Your task to perform on an android device: Search for the new Nintendo switch on Best Buy Image 0: 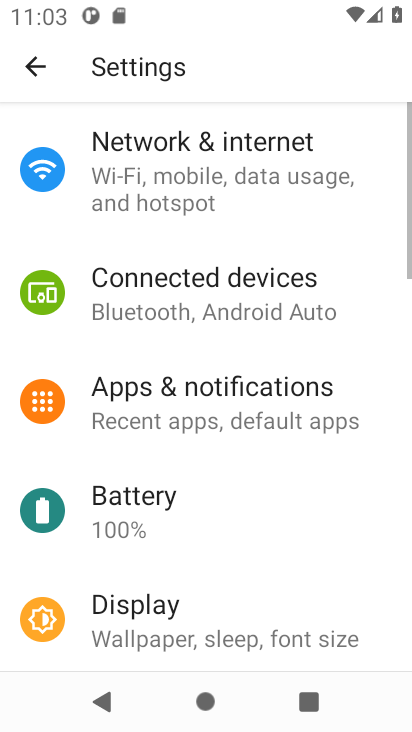
Step 0: press home button
Your task to perform on an android device: Search for the new Nintendo switch on Best Buy Image 1: 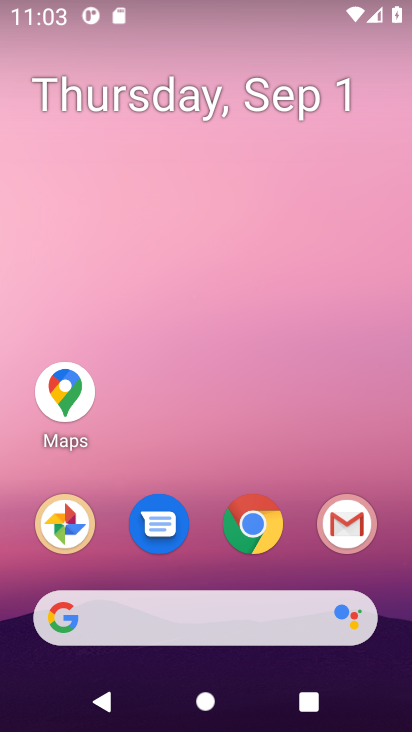
Step 1: drag from (386, 559) to (376, 90)
Your task to perform on an android device: Search for the new Nintendo switch on Best Buy Image 2: 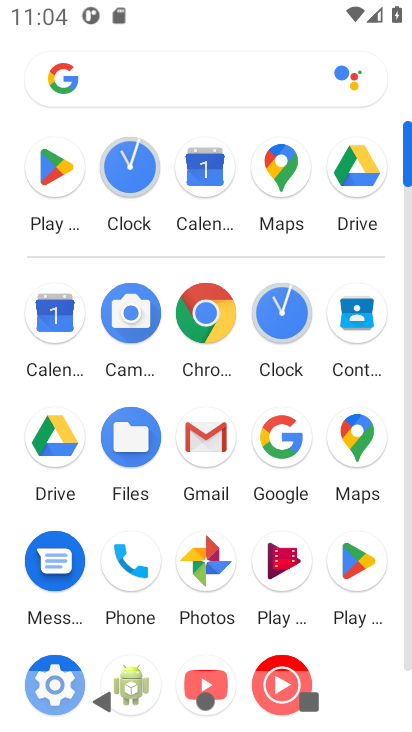
Step 2: click (276, 438)
Your task to perform on an android device: Search for the new Nintendo switch on Best Buy Image 3: 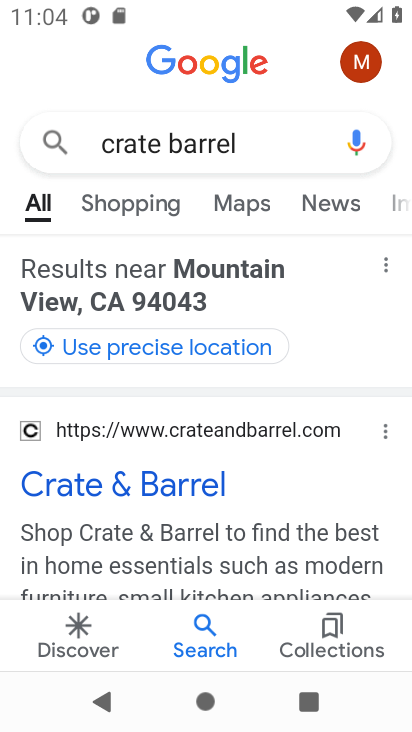
Step 3: press back button
Your task to perform on an android device: Search for the new Nintendo switch on Best Buy Image 4: 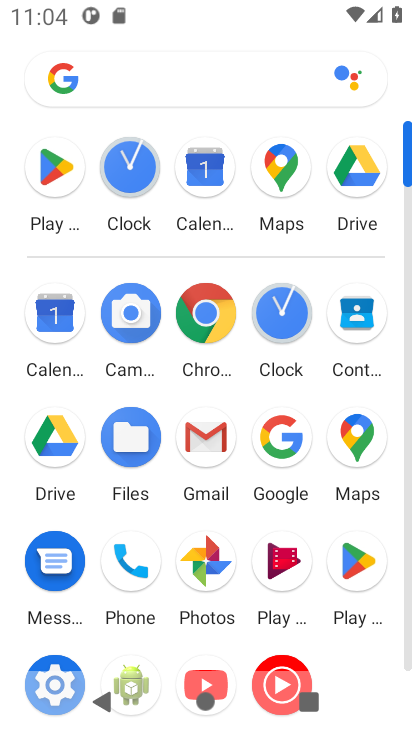
Step 4: click (208, 298)
Your task to perform on an android device: Search for the new Nintendo switch on Best Buy Image 5: 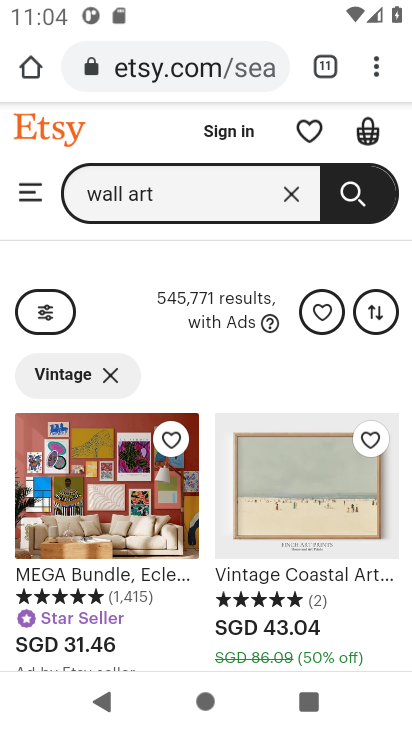
Step 5: click (244, 79)
Your task to perform on an android device: Search for the new Nintendo switch on Best Buy Image 6: 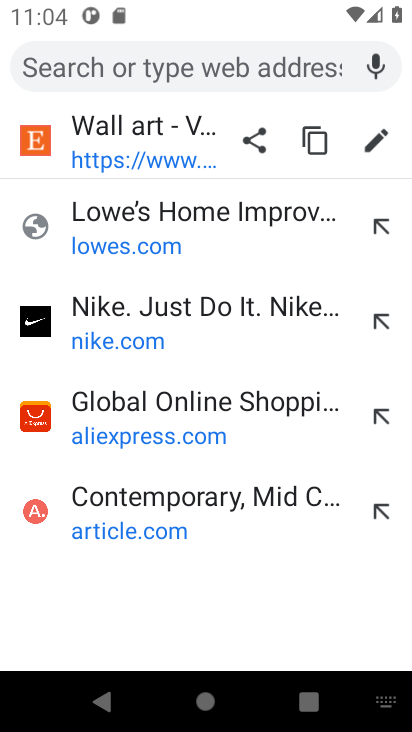
Step 6: press enter
Your task to perform on an android device: Search for the new Nintendo switch on Best Buy Image 7: 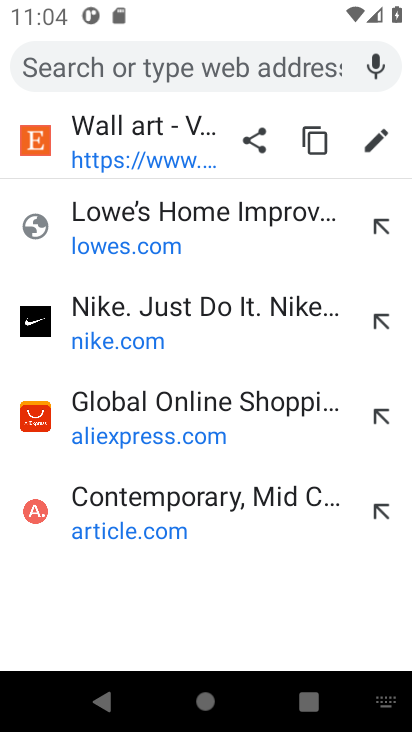
Step 7: type "best buy"
Your task to perform on an android device: Search for the new Nintendo switch on Best Buy Image 8: 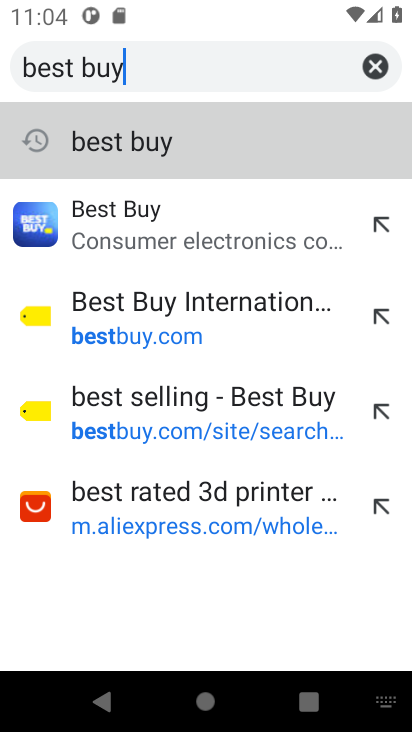
Step 8: click (179, 146)
Your task to perform on an android device: Search for the new Nintendo switch on Best Buy Image 9: 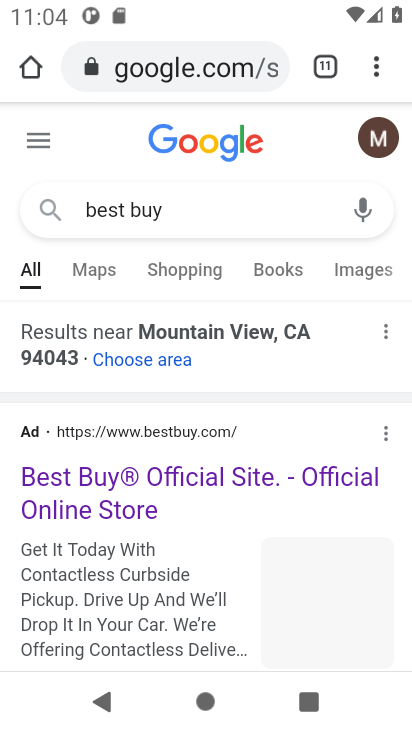
Step 9: click (242, 472)
Your task to perform on an android device: Search for the new Nintendo switch on Best Buy Image 10: 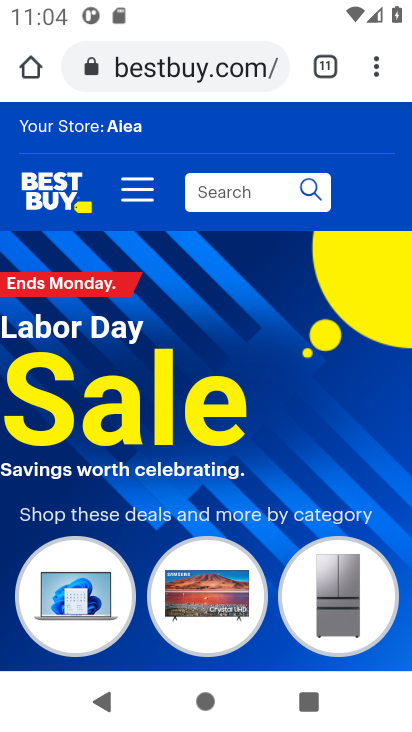
Step 10: click (162, 482)
Your task to perform on an android device: Search for the new Nintendo switch on Best Buy Image 11: 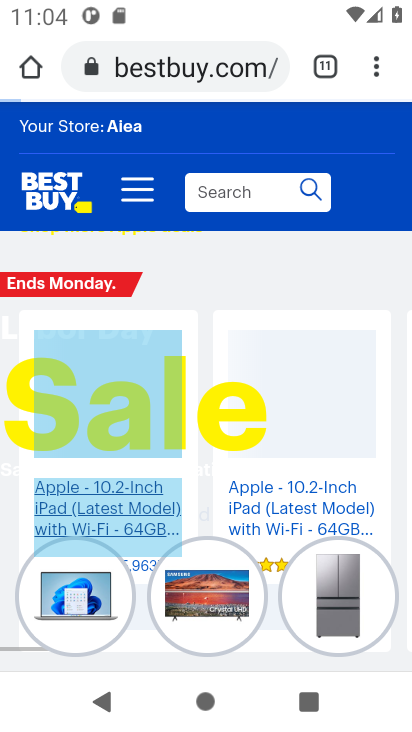
Step 11: click (250, 193)
Your task to perform on an android device: Search for the new Nintendo switch on Best Buy Image 12: 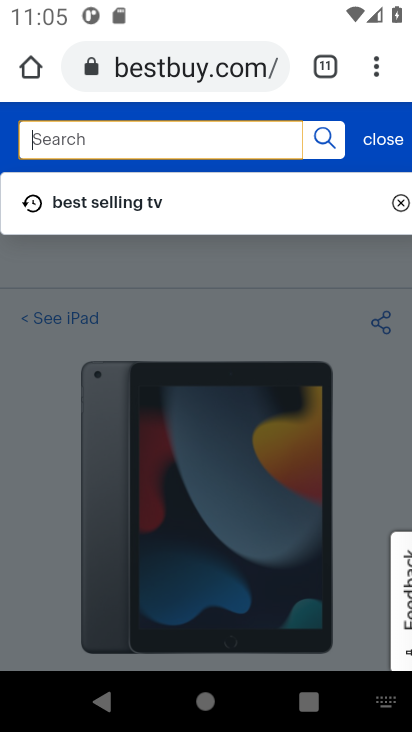
Step 12: press enter
Your task to perform on an android device: Search for the new Nintendo switch on Best Buy Image 13: 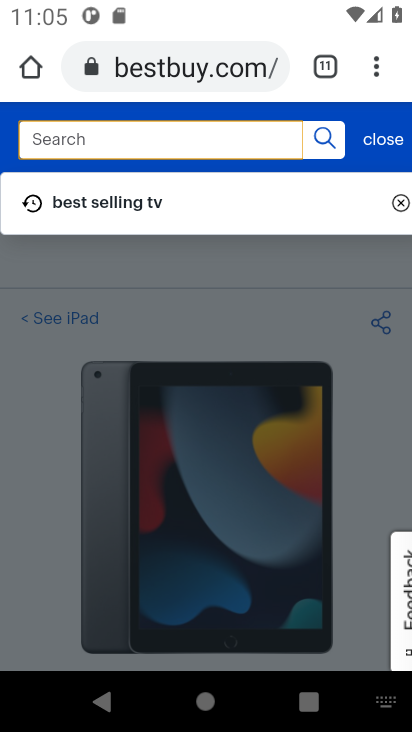
Step 13: type "Nintendo switch "
Your task to perform on an android device: Search for the new Nintendo switch on Best Buy Image 14: 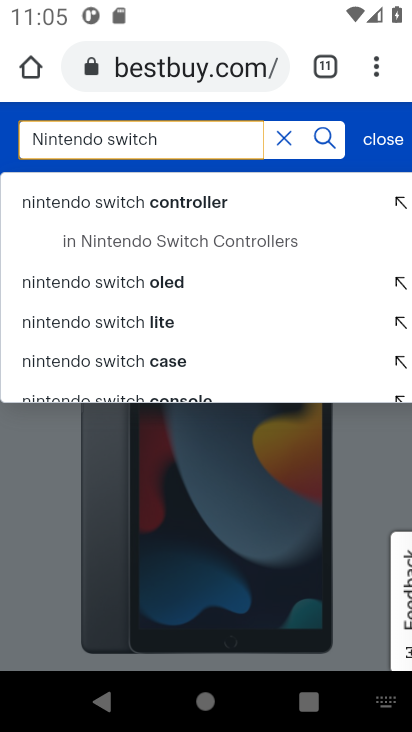
Step 14: click (320, 137)
Your task to perform on an android device: Search for the new Nintendo switch on Best Buy Image 15: 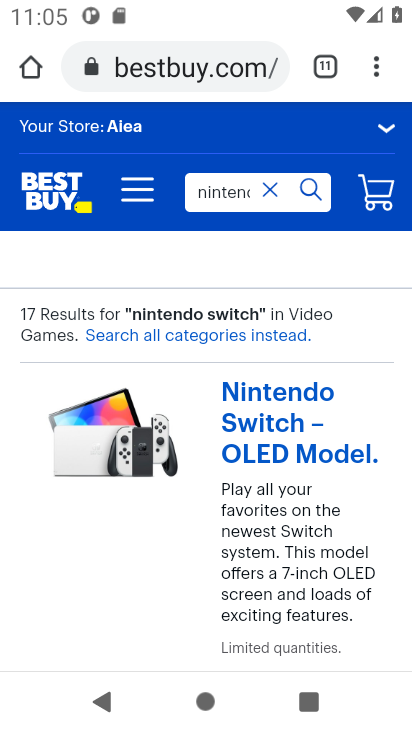
Step 15: task complete